Your task to perform on an android device: Open location settings Image 0: 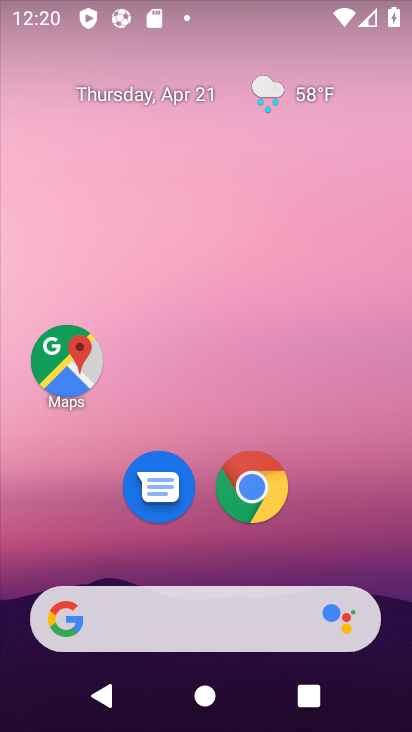
Step 0: drag from (383, 579) to (404, 257)
Your task to perform on an android device: Open location settings Image 1: 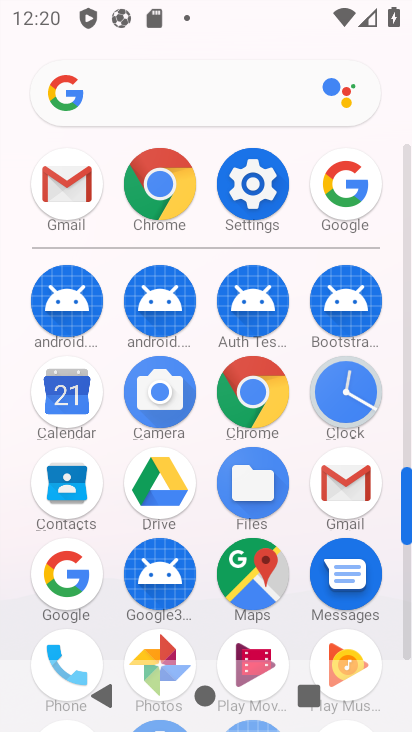
Step 1: click (255, 189)
Your task to perform on an android device: Open location settings Image 2: 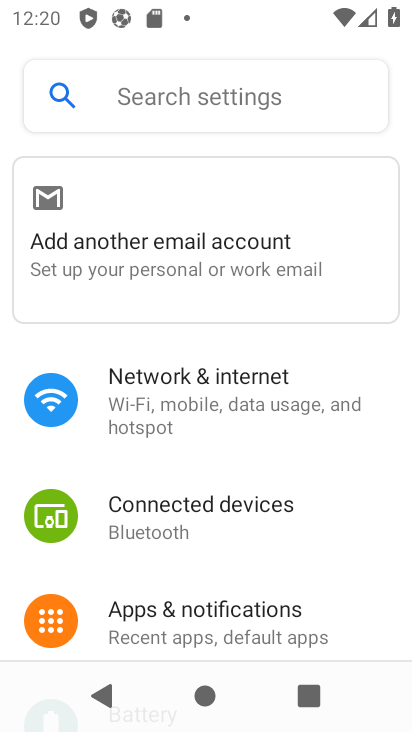
Step 2: drag from (388, 540) to (359, 111)
Your task to perform on an android device: Open location settings Image 3: 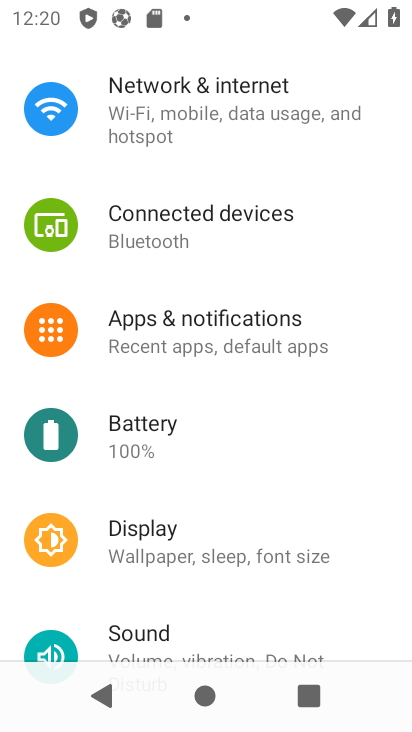
Step 3: drag from (367, 537) to (377, 190)
Your task to perform on an android device: Open location settings Image 4: 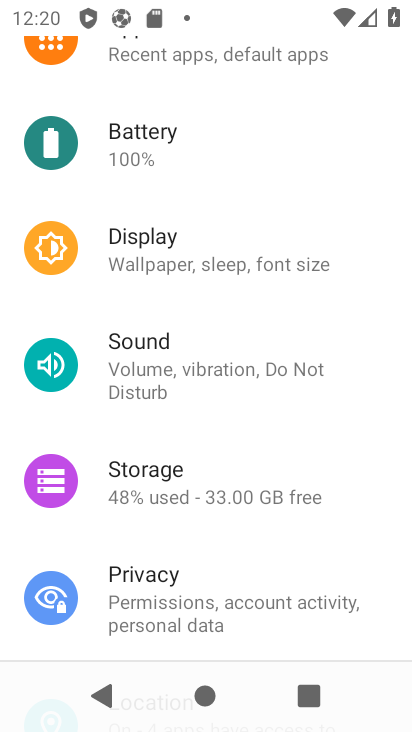
Step 4: drag from (387, 539) to (396, 302)
Your task to perform on an android device: Open location settings Image 5: 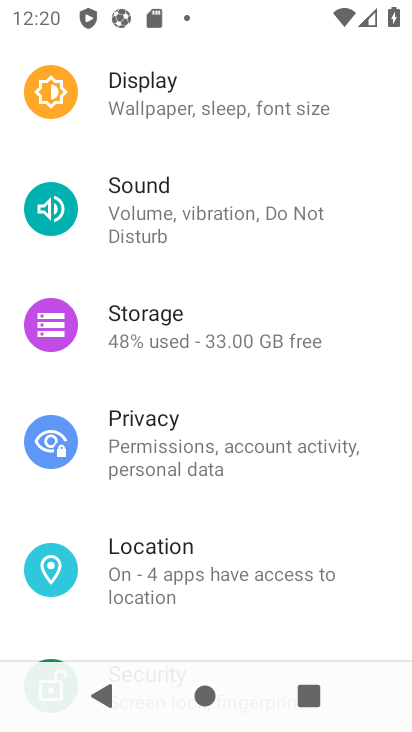
Step 5: click (123, 580)
Your task to perform on an android device: Open location settings Image 6: 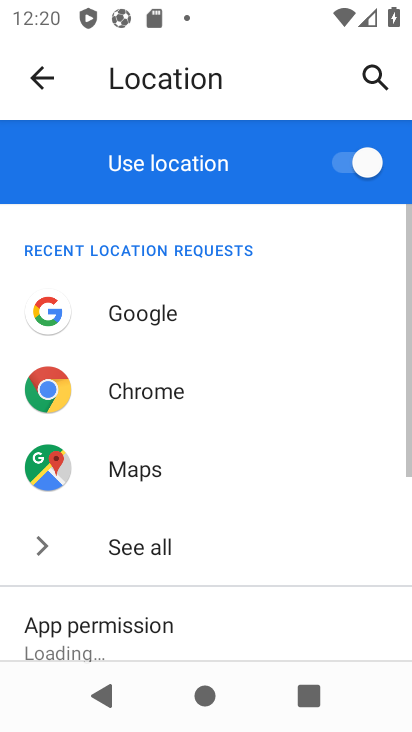
Step 6: task complete